Your task to perform on an android device: toggle translation in the chrome app Image 0: 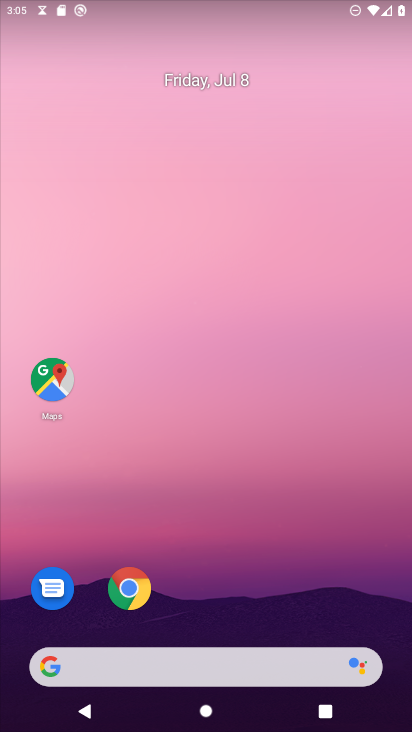
Step 0: click (133, 593)
Your task to perform on an android device: toggle translation in the chrome app Image 1: 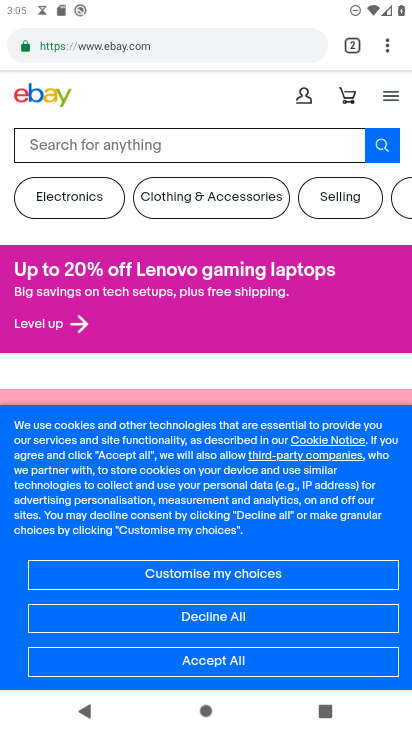
Step 1: click (390, 50)
Your task to perform on an android device: toggle translation in the chrome app Image 2: 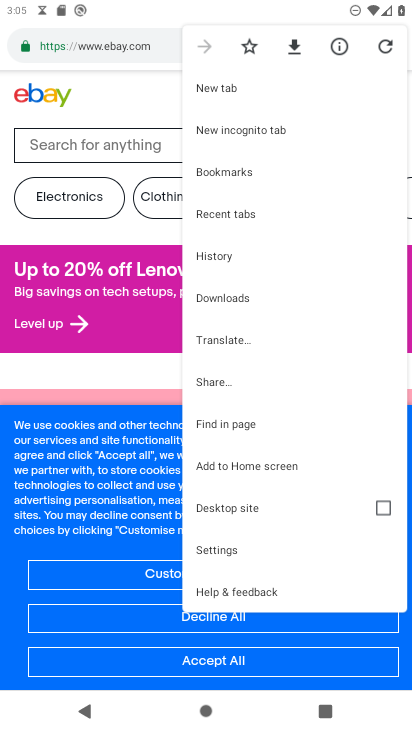
Step 2: click (220, 545)
Your task to perform on an android device: toggle translation in the chrome app Image 3: 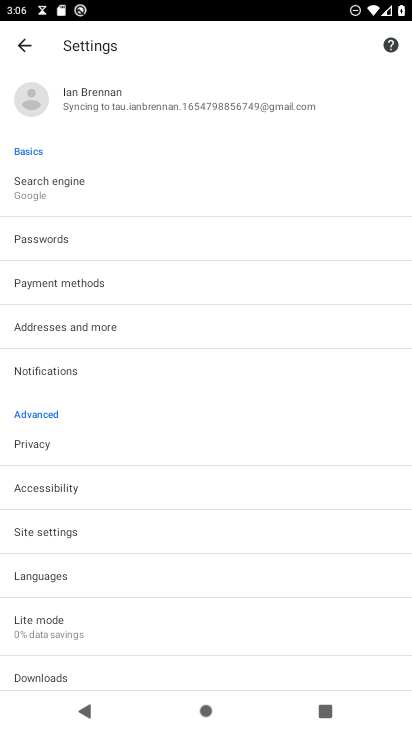
Step 3: click (31, 577)
Your task to perform on an android device: toggle translation in the chrome app Image 4: 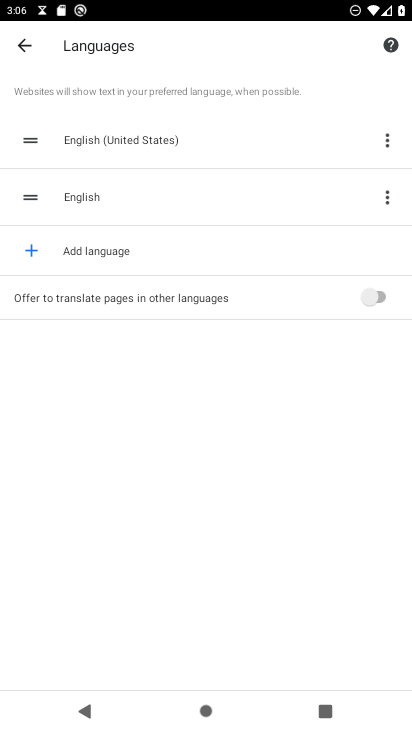
Step 4: click (387, 300)
Your task to perform on an android device: toggle translation in the chrome app Image 5: 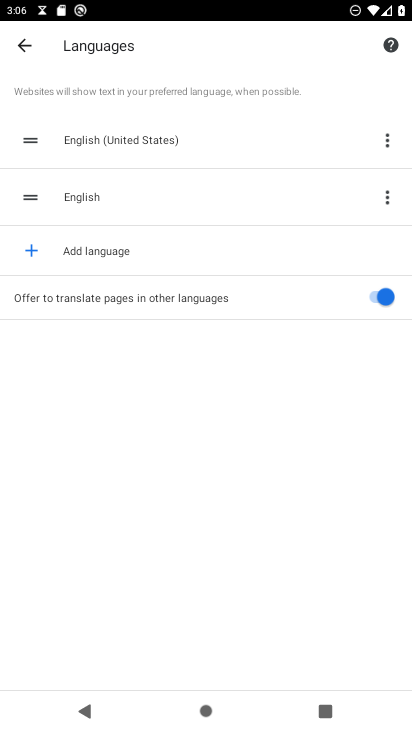
Step 5: task complete